Your task to perform on an android device: snooze an email in the gmail app Image 0: 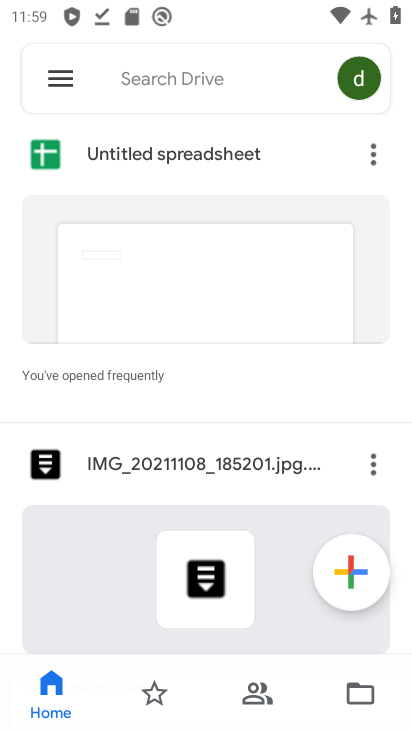
Step 0: press home button
Your task to perform on an android device: snooze an email in the gmail app Image 1: 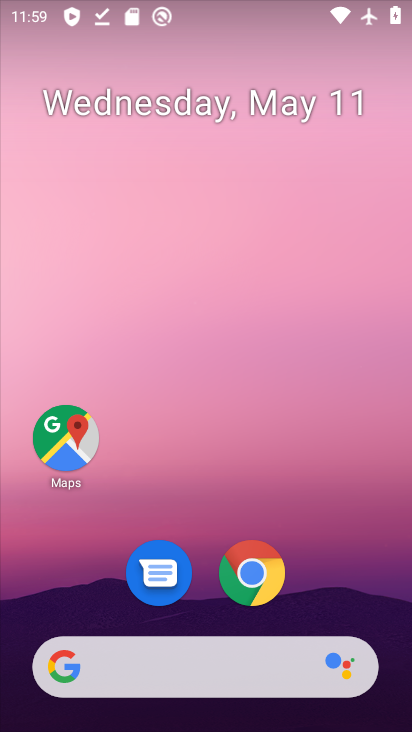
Step 1: drag from (334, 565) to (377, 235)
Your task to perform on an android device: snooze an email in the gmail app Image 2: 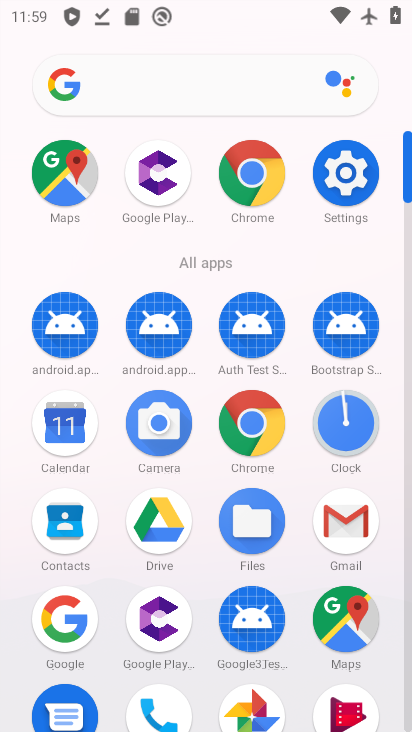
Step 2: click (341, 536)
Your task to perform on an android device: snooze an email in the gmail app Image 3: 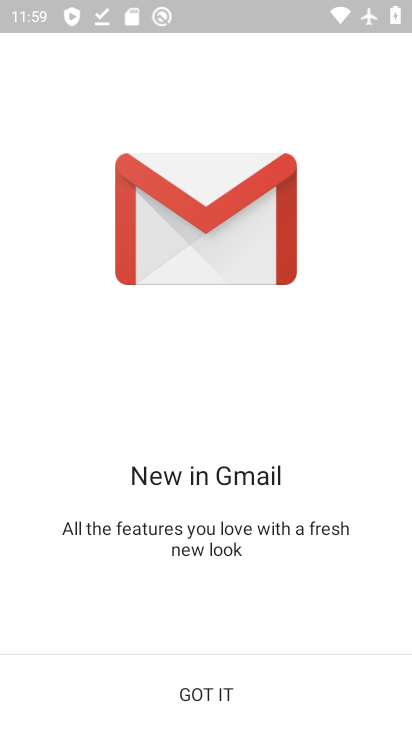
Step 3: click (199, 686)
Your task to perform on an android device: snooze an email in the gmail app Image 4: 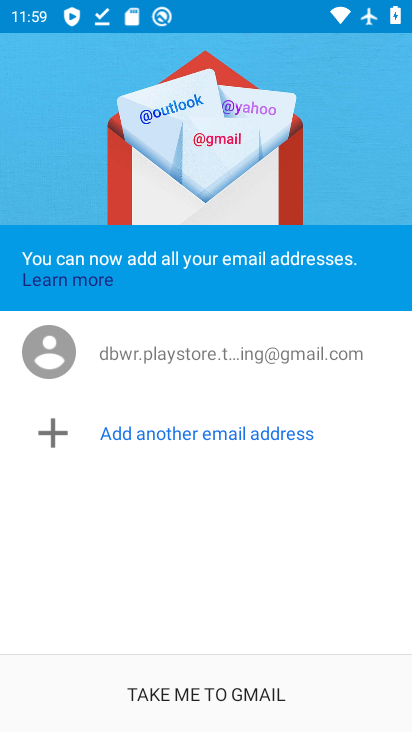
Step 4: click (195, 709)
Your task to perform on an android device: snooze an email in the gmail app Image 5: 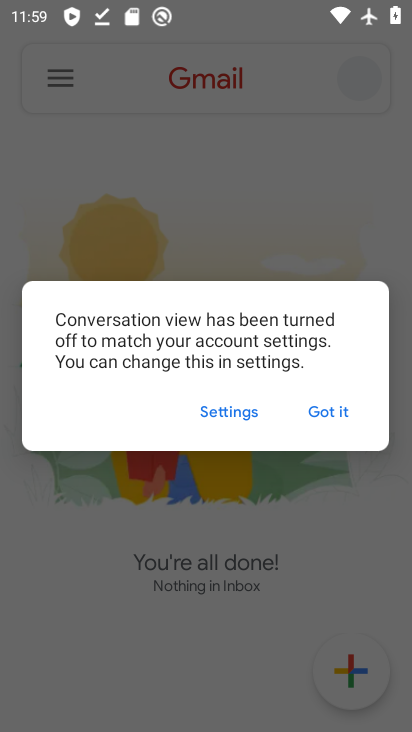
Step 5: click (53, 76)
Your task to perform on an android device: snooze an email in the gmail app Image 6: 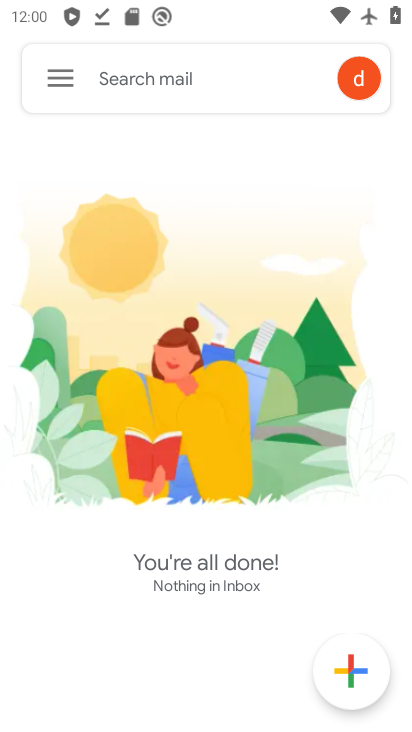
Step 6: click (61, 84)
Your task to perform on an android device: snooze an email in the gmail app Image 7: 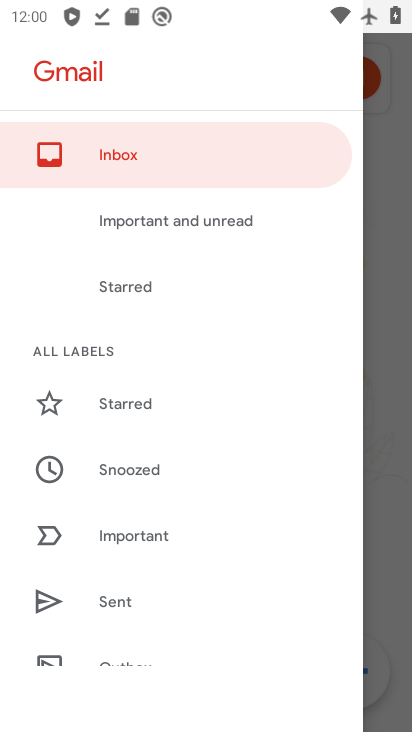
Step 7: click (386, 395)
Your task to perform on an android device: snooze an email in the gmail app Image 8: 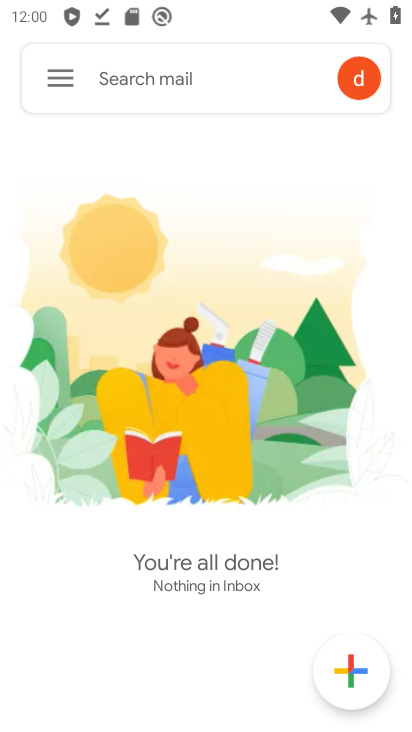
Step 8: task complete